Your task to perform on an android device: Search for "razer deathadder" on amazon.com, select the first entry, add it to the cart, then select checkout. Image 0: 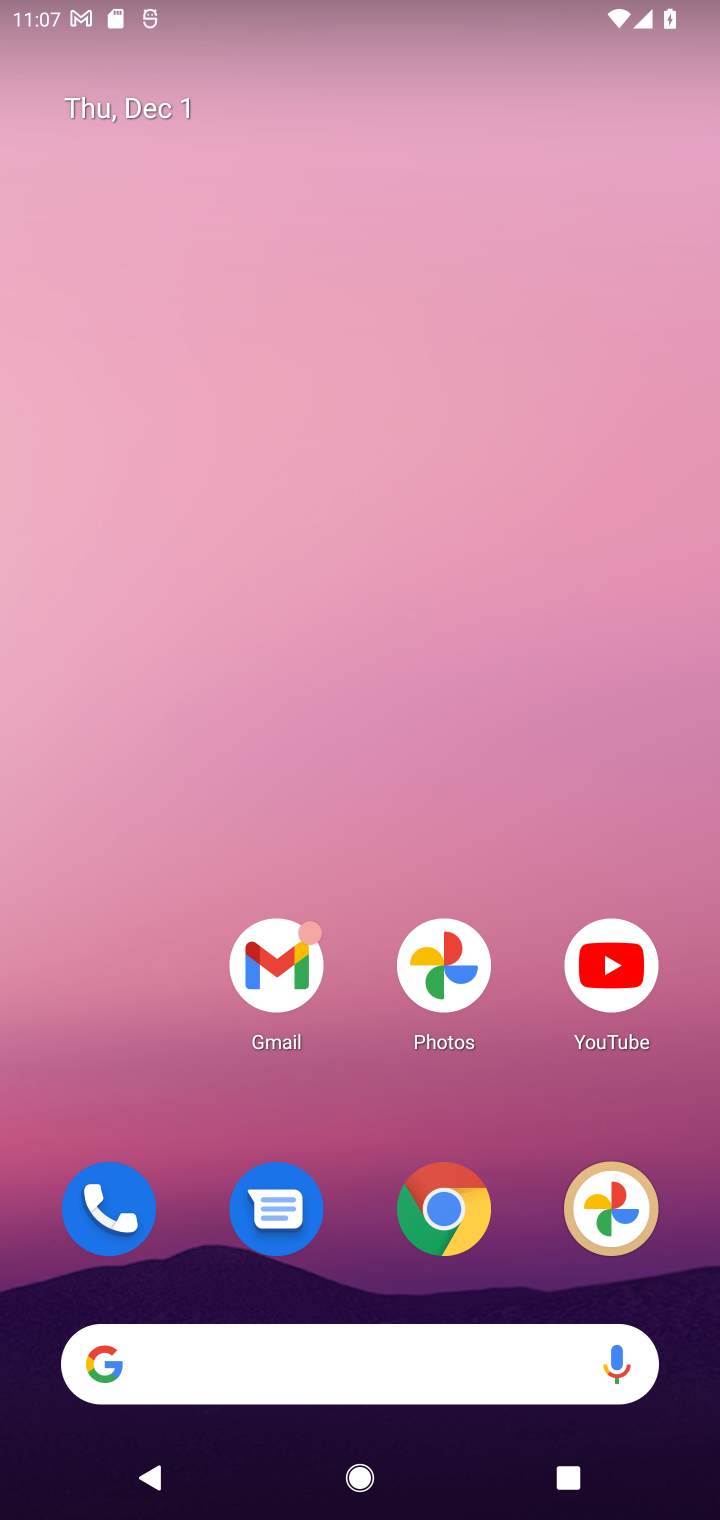
Step 0: task complete